Your task to perform on an android device: turn notification dots on Image 0: 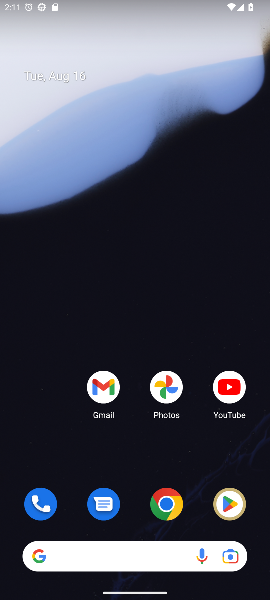
Step 0: drag from (136, 521) to (137, 132)
Your task to perform on an android device: turn notification dots on Image 1: 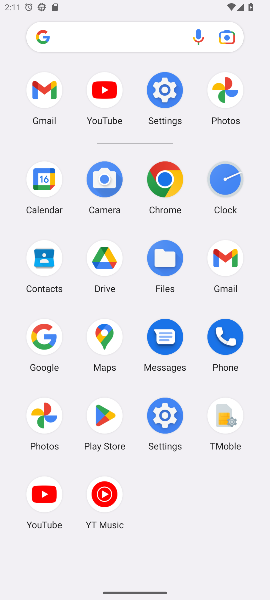
Step 1: click (164, 91)
Your task to perform on an android device: turn notification dots on Image 2: 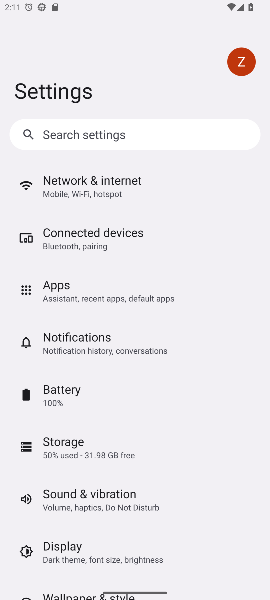
Step 2: click (76, 334)
Your task to perform on an android device: turn notification dots on Image 3: 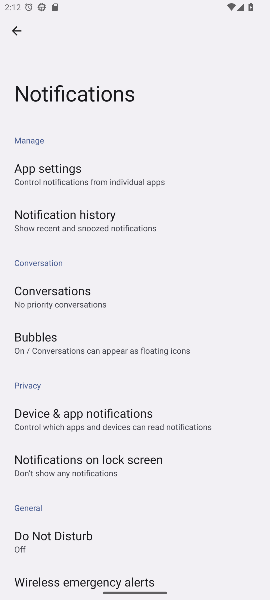
Step 3: drag from (190, 531) to (208, 277)
Your task to perform on an android device: turn notification dots on Image 4: 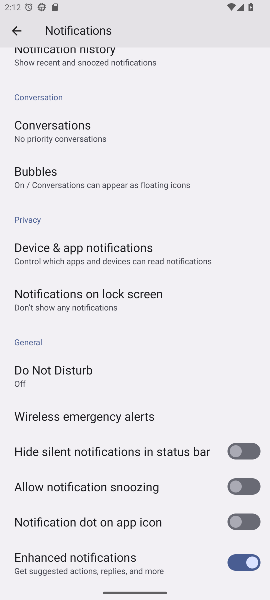
Step 4: click (235, 523)
Your task to perform on an android device: turn notification dots on Image 5: 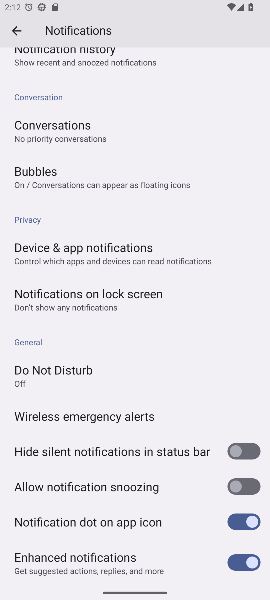
Step 5: task complete